Your task to perform on an android device: turn pop-ups off in chrome Image 0: 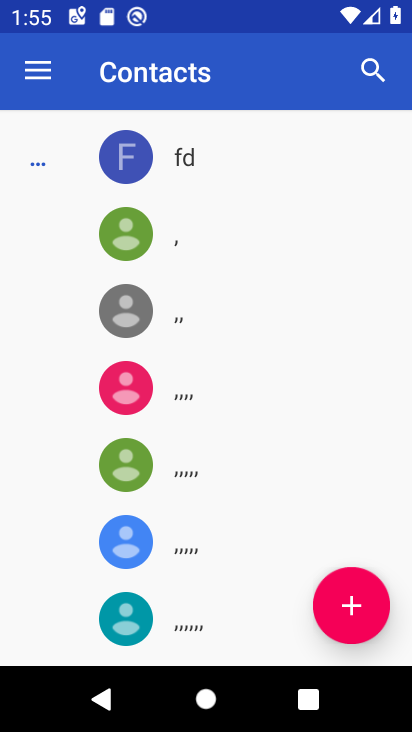
Step 0: press home button
Your task to perform on an android device: turn pop-ups off in chrome Image 1: 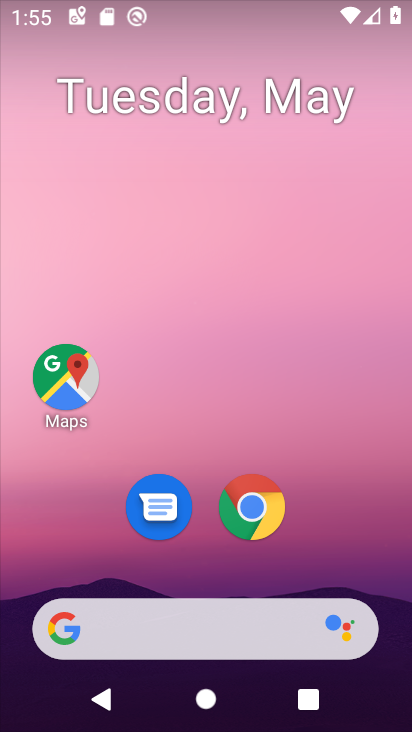
Step 1: click (247, 513)
Your task to perform on an android device: turn pop-ups off in chrome Image 2: 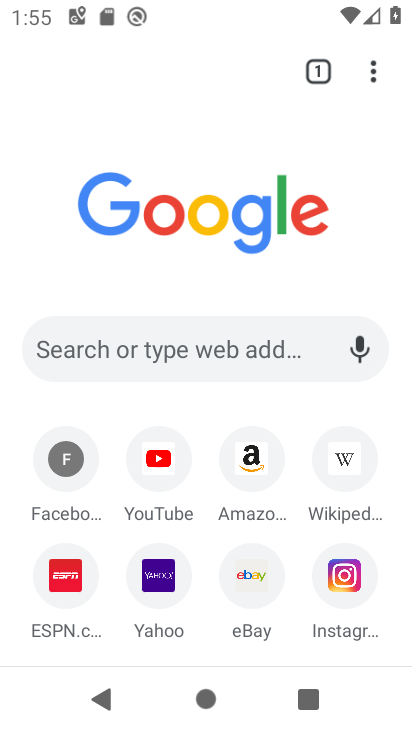
Step 2: drag from (379, 66) to (125, 516)
Your task to perform on an android device: turn pop-ups off in chrome Image 3: 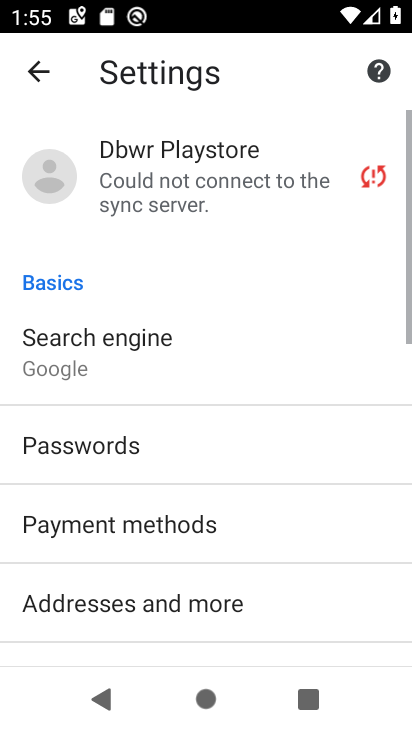
Step 3: drag from (160, 619) to (229, 296)
Your task to perform on an android device: turn pop-ups off in chrome Image 4: 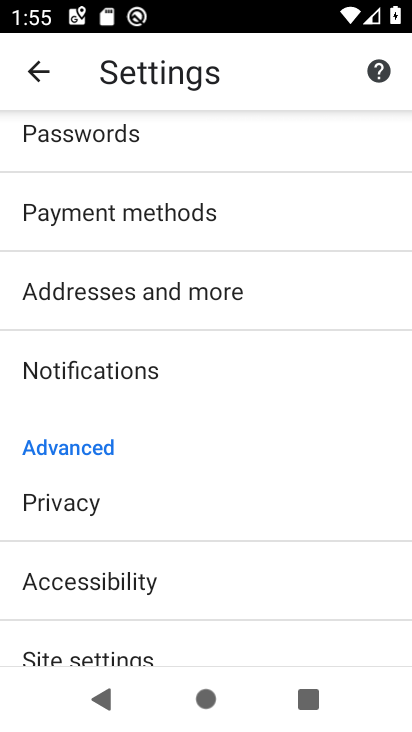
Step 4: drag from (170, 581) to (231, 388)
Your task to perform on an android device: turn pop-ups off in chrome Image 5: 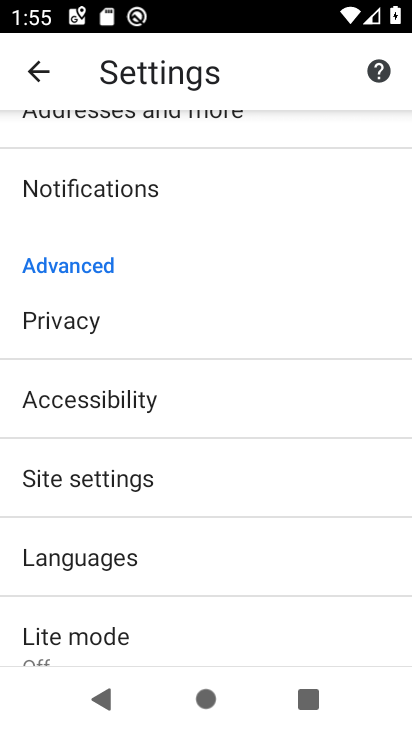
Step 5: click (194, 476)
Your task to perform on an android device: turn pop-ups off in chrome Image 6: 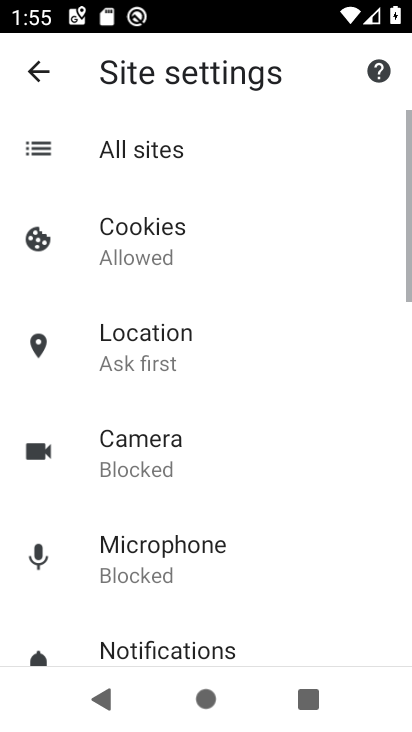
Step 6: drag from (258, 489) to (285, 330)
Your task to perform on an android device: turn pop-ups off in chrome Image 7: 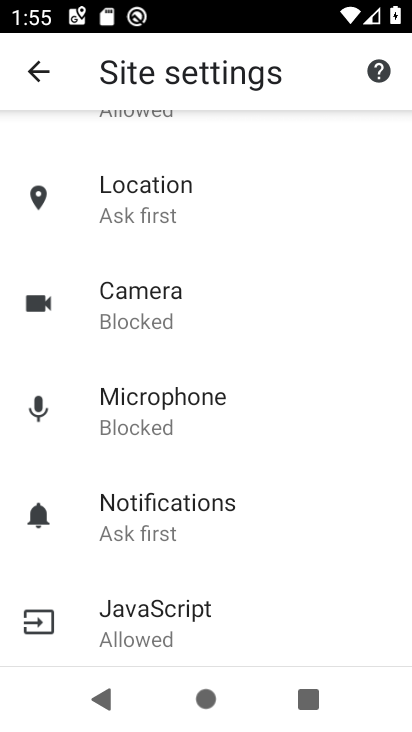
Step 7: drag from (279, 601) to (290, 401)
Your task to perform on an android device: turn pop-ups off in chrome Image 8: 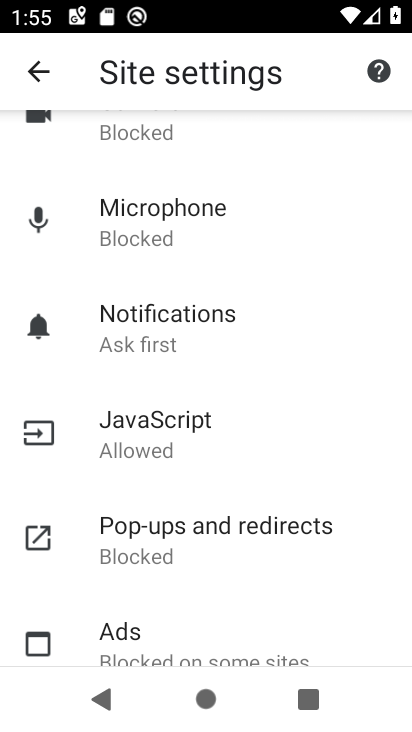
Step 8: click (251, 549)
Your task to perform on an android device: turn pop-ups off in chrome Image 9: 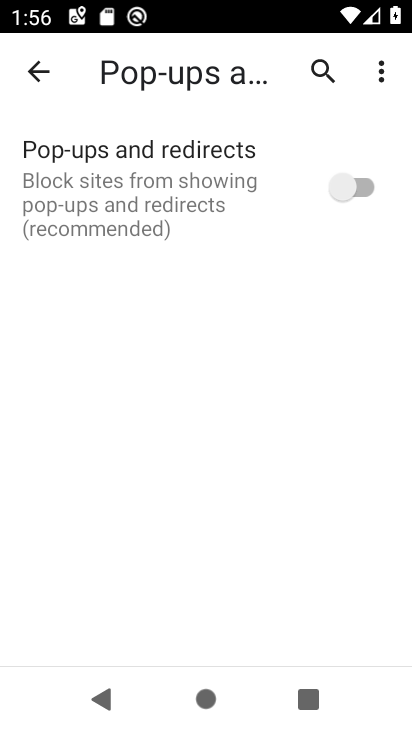
Step 9: task complete